Your task to perform on an android device: clear all cookies in the chrome app Image 0: 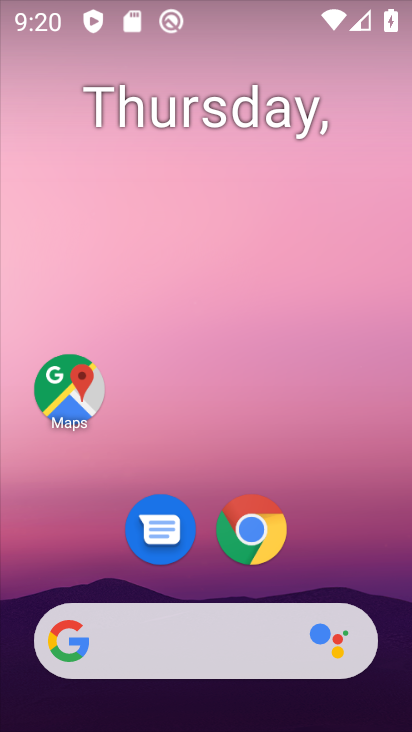
Step 0: click (252, 531)
Your task to perform on an android device: clear all cookies in the chrome app Image 1: 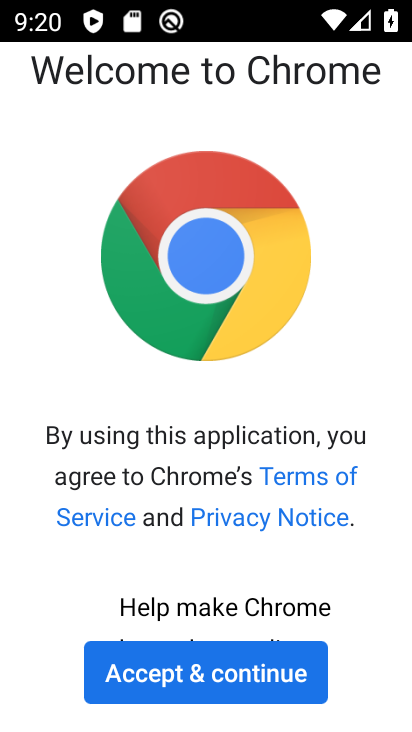
Step 1: click (208, 677)
Your task to perform on an android device: clear all cookies in the chrome app Image 2: 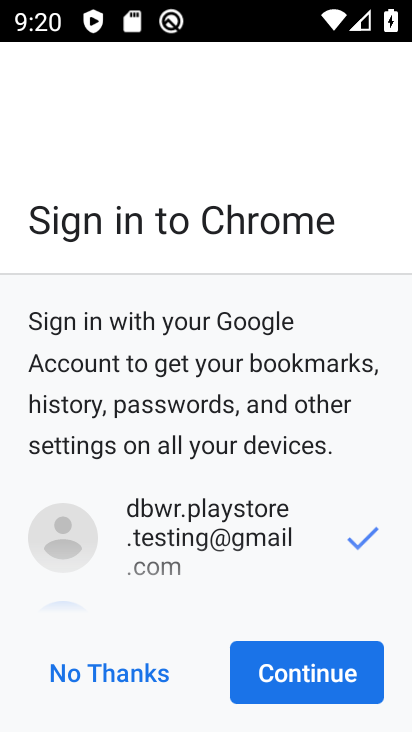
Step 2: click (284, 676)
Your task to perform on an android device: clear all cookies in the chrome app Image 3: 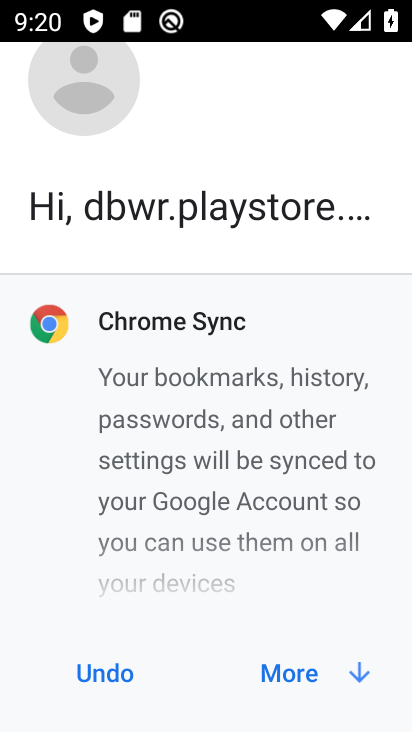
Step 3: click (284, 676)
Your task to perform on an android device: clear all cookies in the chrome app Image 4: 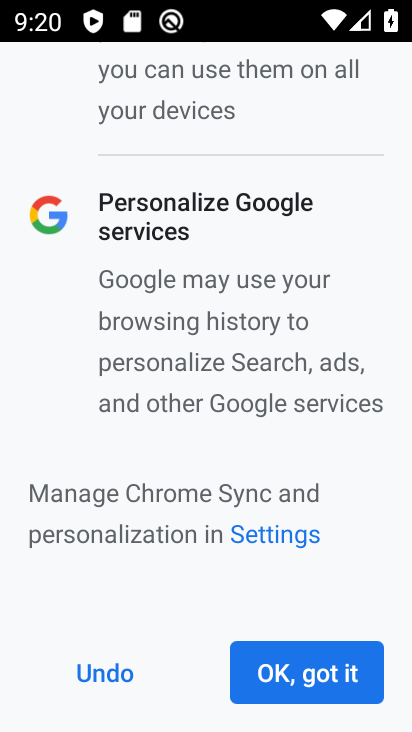
Step 4: click (284, 676)
Your task to perform on an android device: clear all cookies in the chrome app Image 5: 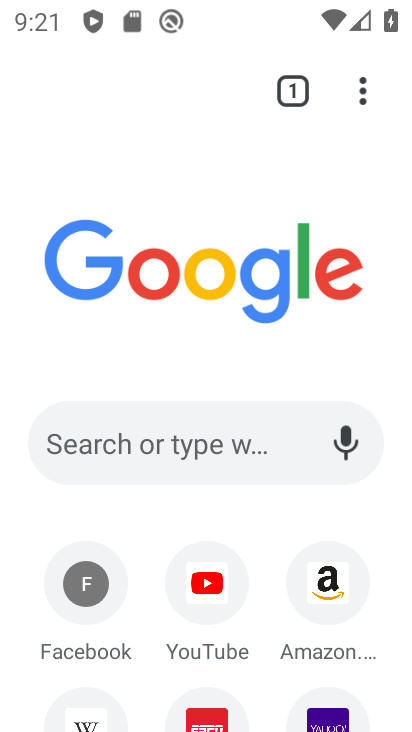
Step 5: click (363, 94)
Your task to perform on an android device: clear all cookies in the chrome app Image 6: 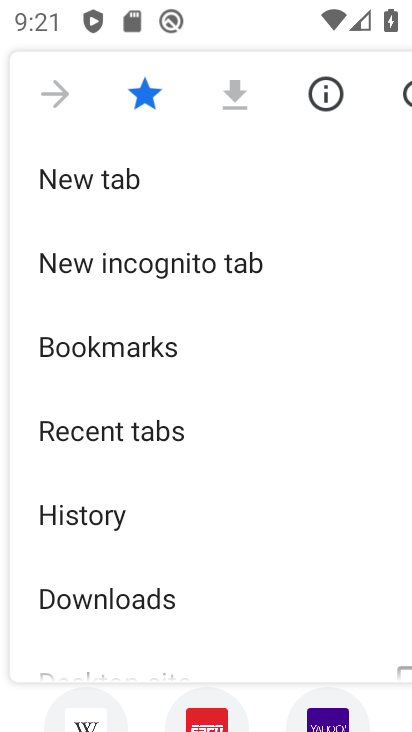
Step 6: drag from (142, 476) to (171, 344)
Your task to perform on an android device: clear all cookies in the chrome app Image 7: 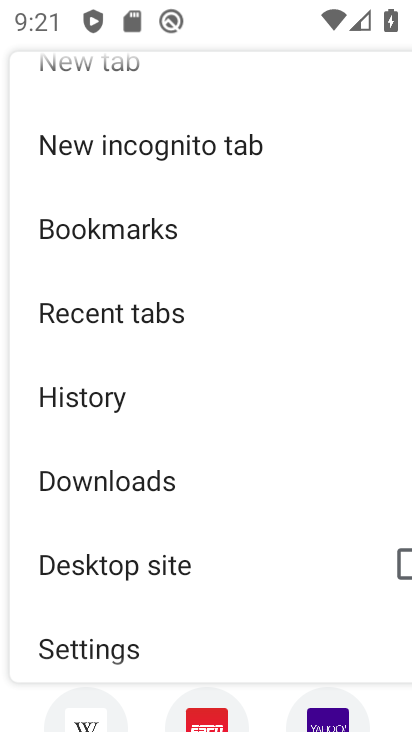
Step 7: drag from (101, 516) to (222, 381)
Your task to perform on an android device: clear all cookies in the chrome app Image 8: 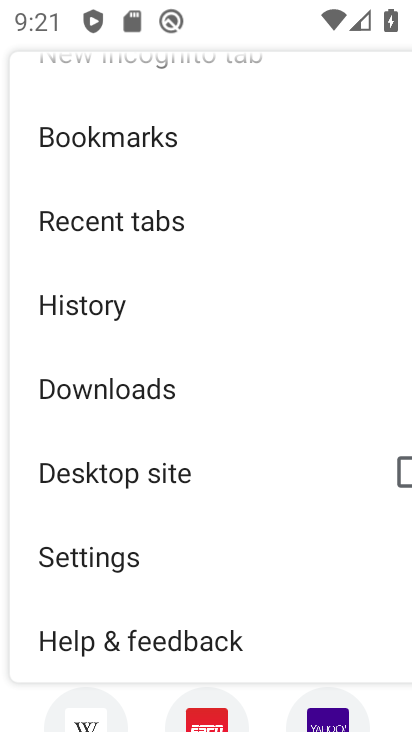
Step 8: click (116, 558)
Your task to perform on an android device: clear all cookies in the chrome app Image 9: 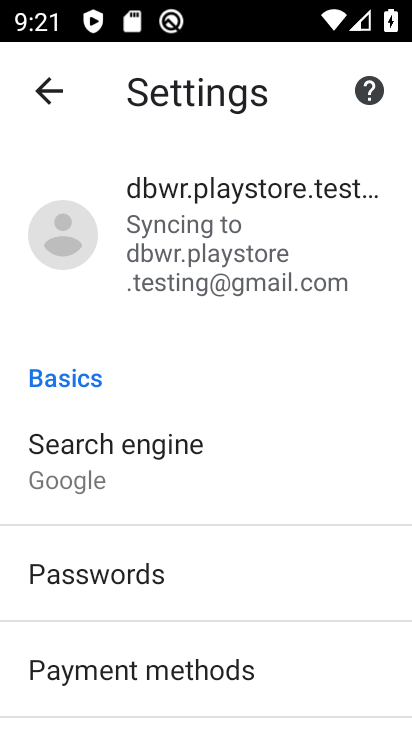
Step 9: drag from (108, 501) to (154, 404)
Your task to perform on an android device: clear all cookies in the chrome app Image 10: 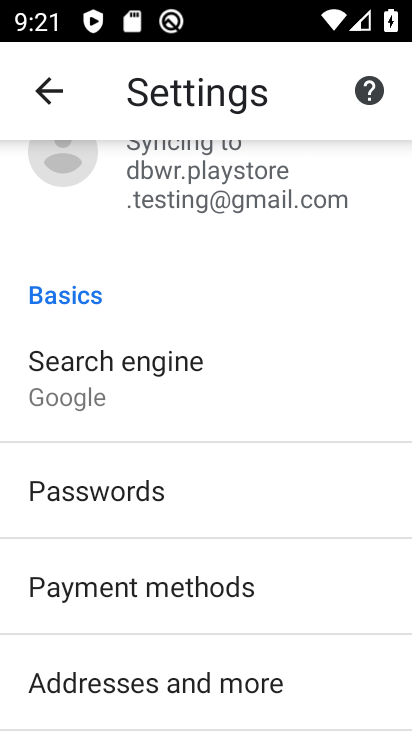
Step 10: drag from (106, 517) to (128, 448)
Your task to perform on an android device: clear all cookies in the chrome app Image 11: 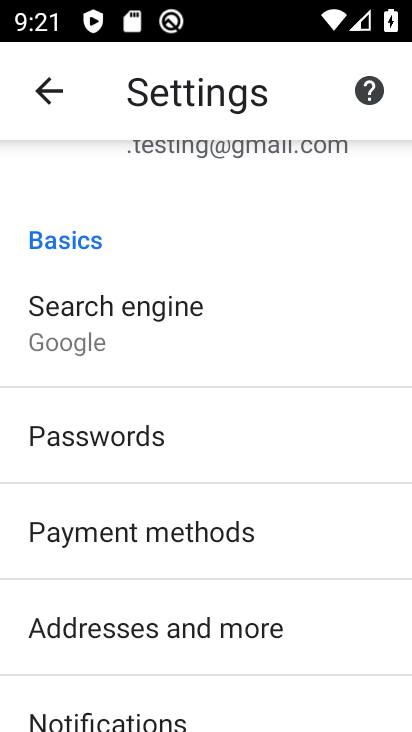
Step 11: drag from (98, 511) to (190, 411)
Your task to perform on an android device: clear all cookies in the chrome app Image 12: 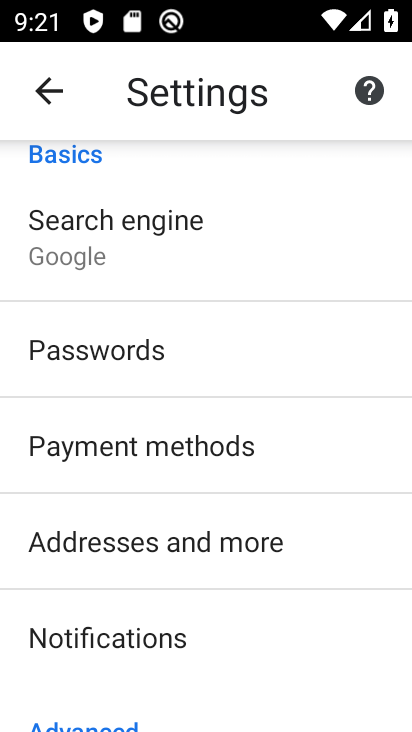
Step 12: drag from (80, 523) to (178, 421)
Your task to perform on an android device: clear all cookies in the chrome app Image 13: 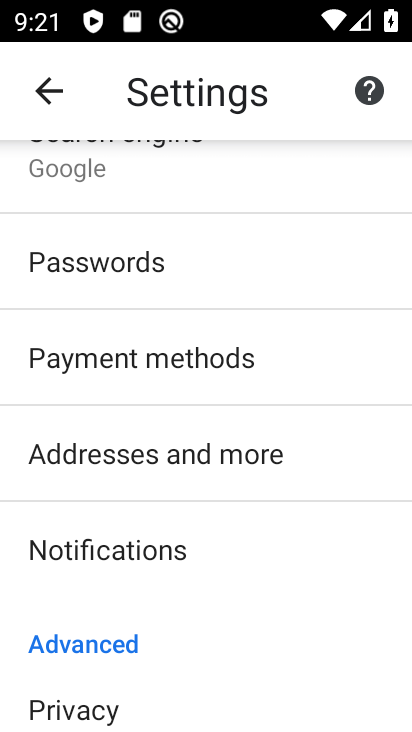
Step 13: drag from (95, 524) to (209, 401)
Your task to perform on an android device: clear all cookies in the chrome app Image 14: 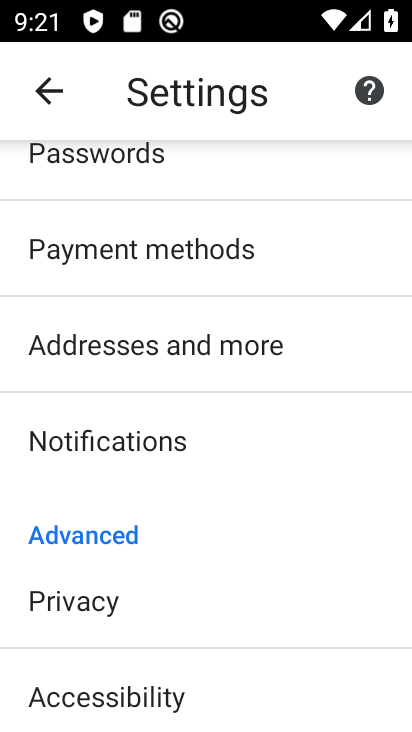
Step 14: click (104, 612)
Your task to perform on an android device: clear all cookies in the chrome app Image 15: 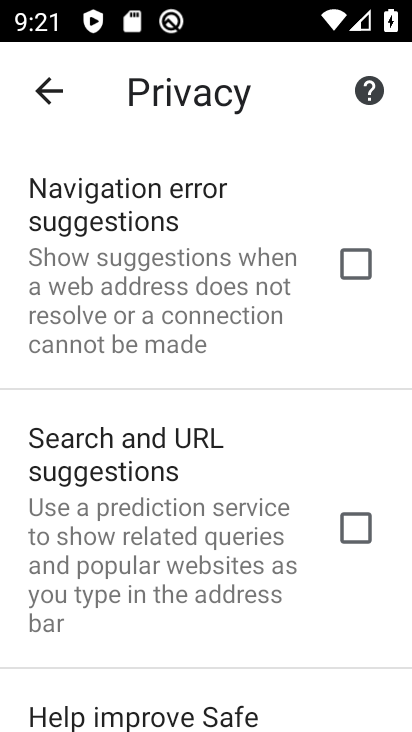
Step 15: drag from (201, 633) to (273, 470)
Your task to perform on an android device: clear all cookies in the chrome app Image 16: 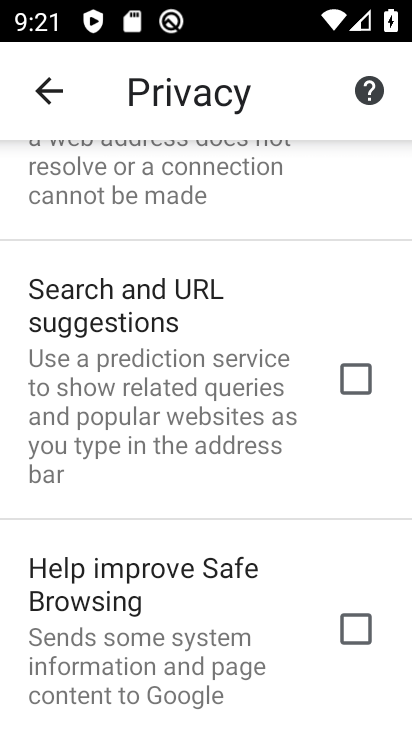
Step 16: drag from (154, 604) to (256, 478)
Your task to perform on an android device: clear all cookies in the chrome app Image 17: 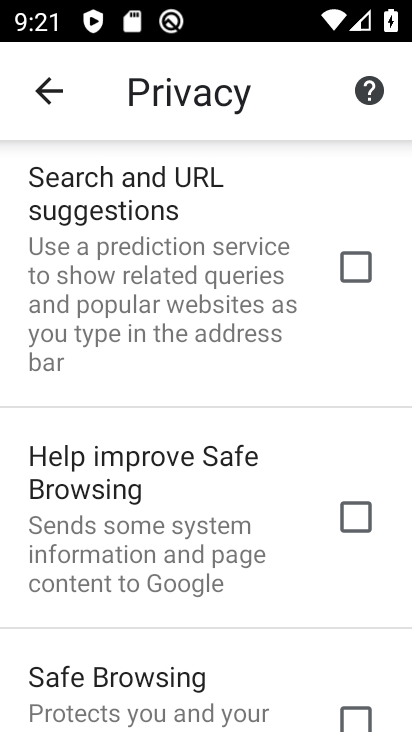
Step 17: drag from (163, 657) to (252, 487)
Your task to perform on an android device: clear all cookies in the chrome app Image 18: 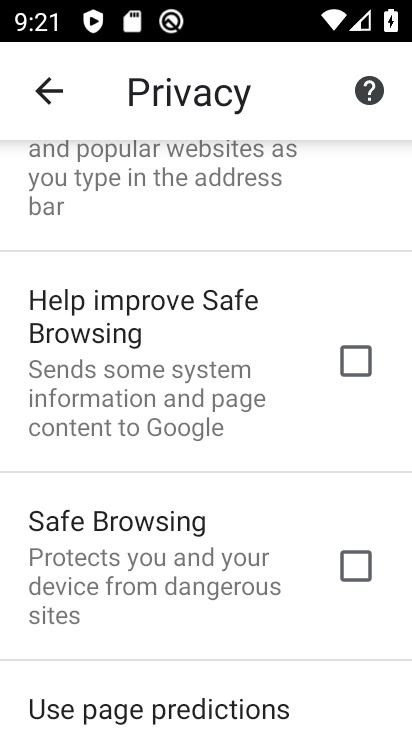
Step 18: drag from (135, 620) to (237, 493)
Your task to perform on an android device: clear all cookies in the chrome app Image 19: 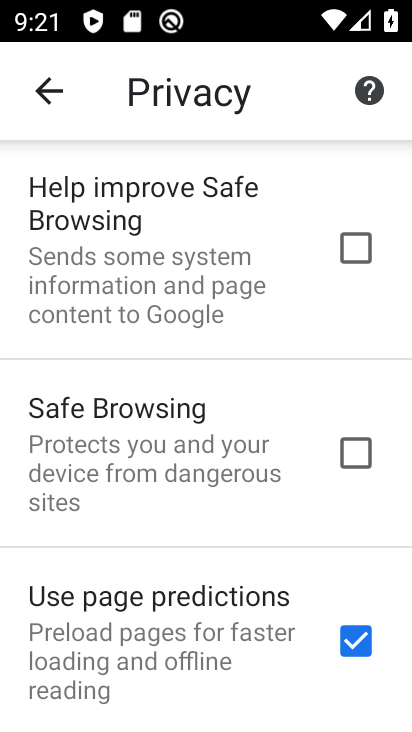
Step 19: drag from (155, 646) to (261, 505)
Your task to perform on an android device: clear all cookies in the chrome app Image 20: 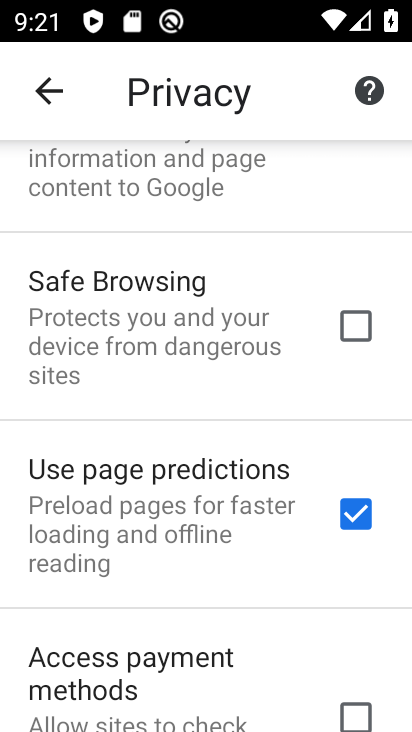
Step 20: drag from (158, 632) to (254, 535)
Your task to perform on an android device: clear all cookies in the chrome app Image 21: 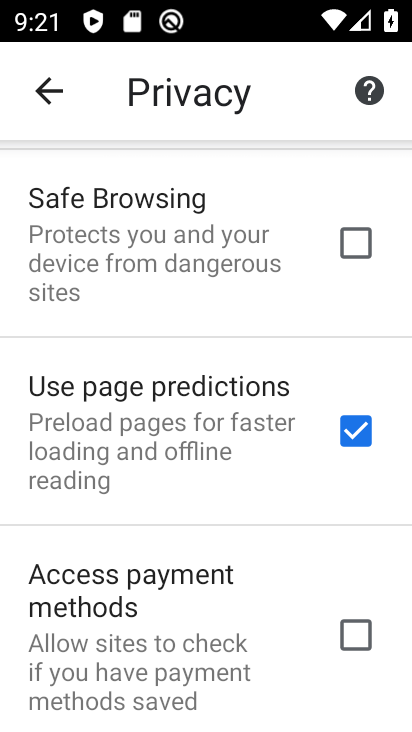
Step 21: drag from (141, 655) to (249, 513)
Your task to perform on an android device: clear all cookies in the chrome app Image 22: 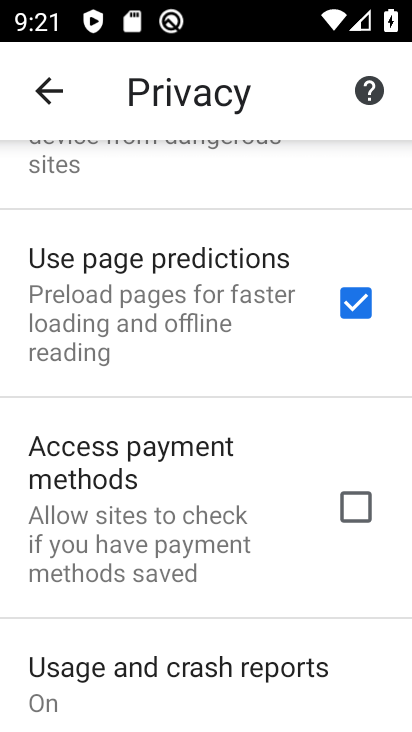
Step 22: drag from (124, 627) to (233, 511)
Your task to perform on an android device: clear all cookies in the chrome app Image 23: 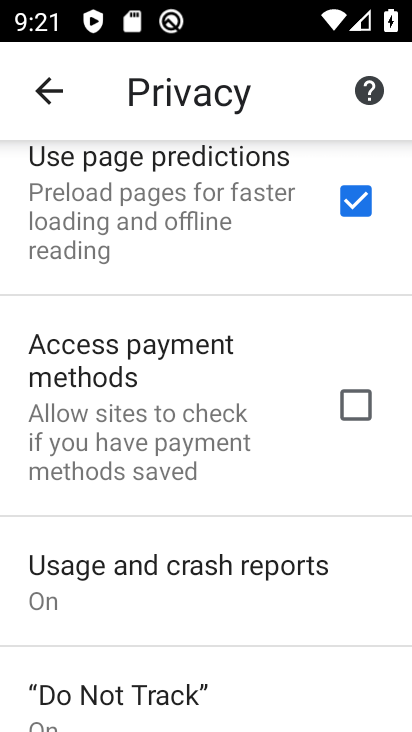
Step 23: drag from (87, 681) to (224, 510)
Your task to perform on an android device: clear all cookies in the chrome app Image 24: 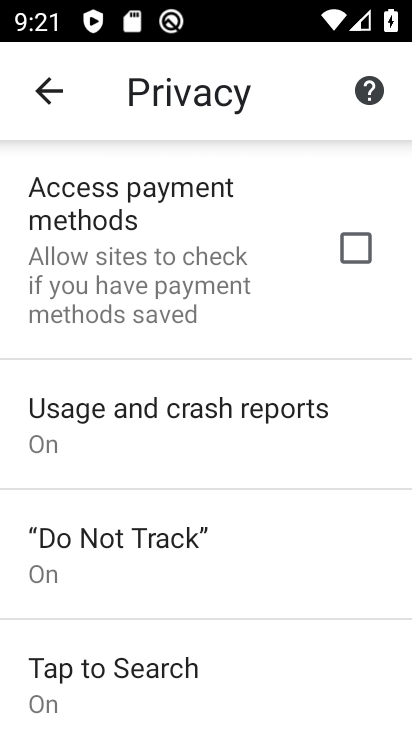
Step 24: drag from (139, 636) to (271, 474)
Your task to perform on an android device: clear all cookies in the chrome app Image 25: 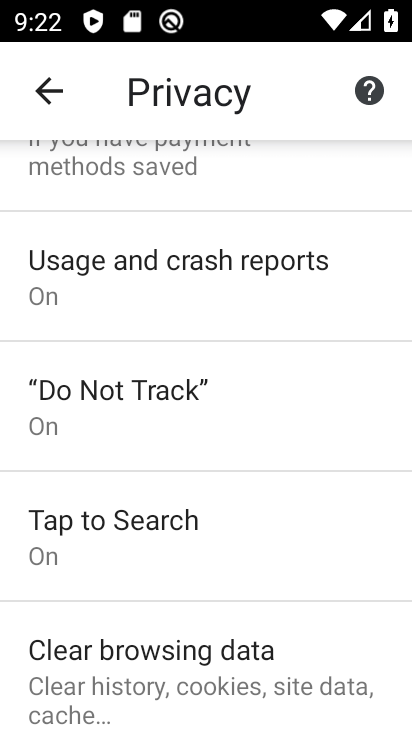
Step 25: click (119, 673)
Your task to perform on an android device: clear all cookies in the chrome app Image 26: 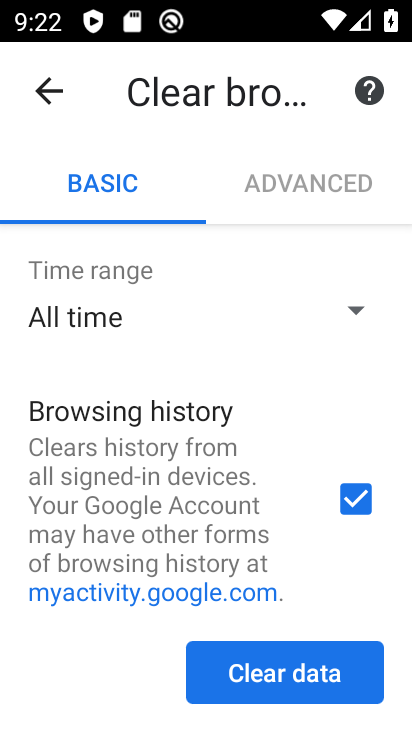
Step 26: drag from (246, 569) to (352, 403)
Your task to perform on an android device: clear all cookies in the chrome app Image 27: 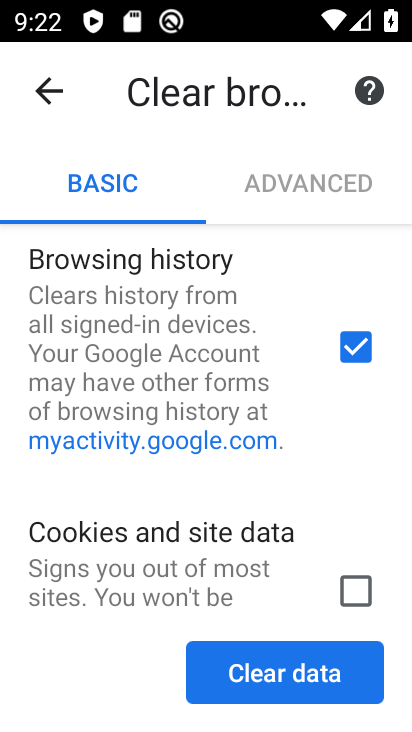
Step 27: click (360, 584)
Your task to perform on an android device: clear all cookies in the chrome app Image 28: 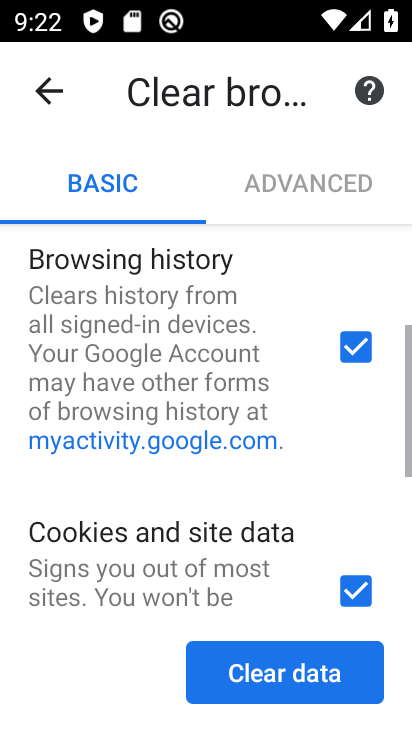
Step 28: click (270, 667)
Your task to perform on an android device: clear all cookies in the chrome app Image 29: 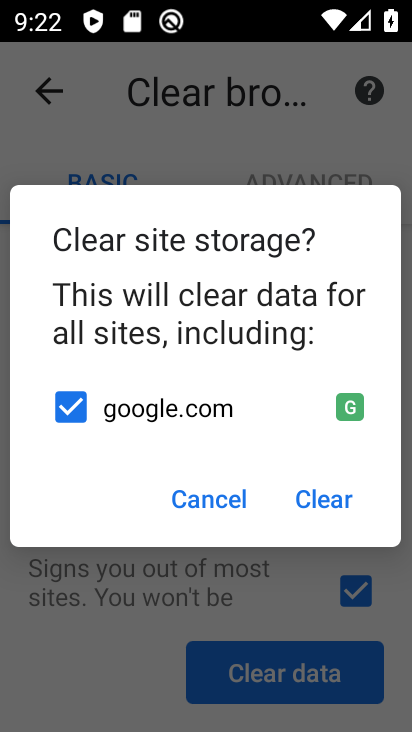
Step 29: click (346, 506)
Your task to perform on an android device: clear all cookies in the chrome app Image 30: 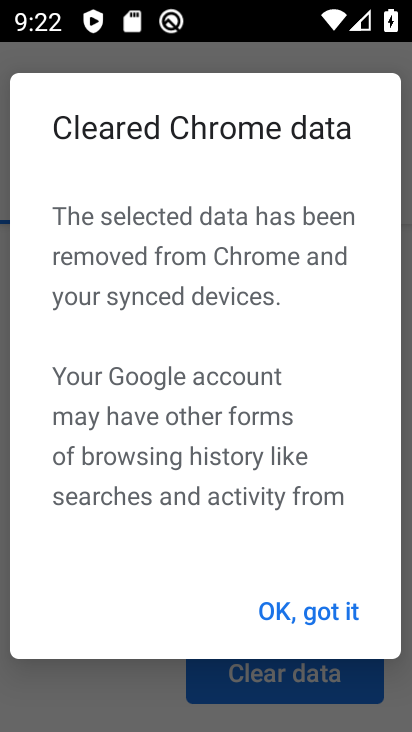
Step 30: click (314, 608)
Your task to perform on an android device: clear all cookies in the chrome app Image 31: 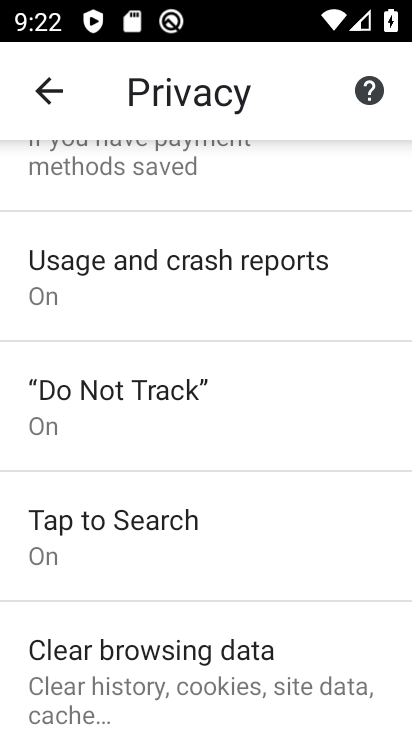
Step 31: task complete